Your task to perform on an android device: turn off javascript in the chrome app Image 0: 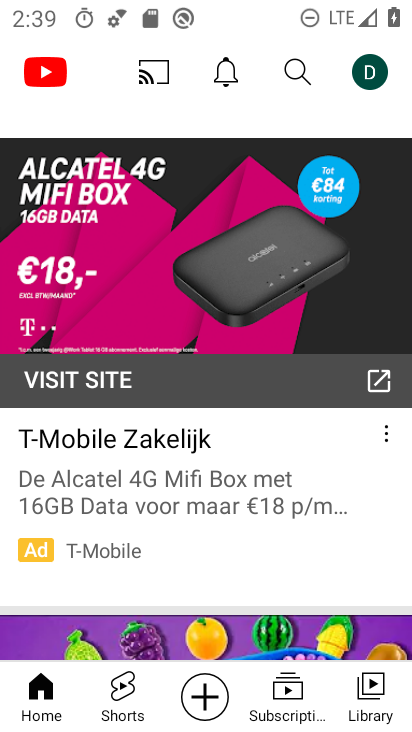
Step 0: press home button
Your task to perform on an android device: turn off javascript in the chrome app Image 1: 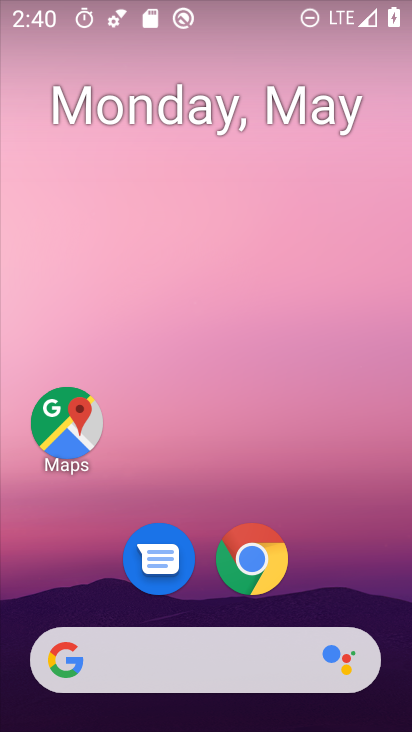
Step 1: click (257, 559)
Your task to perform on an android device: turn off javascript in the chrome app Image 2: 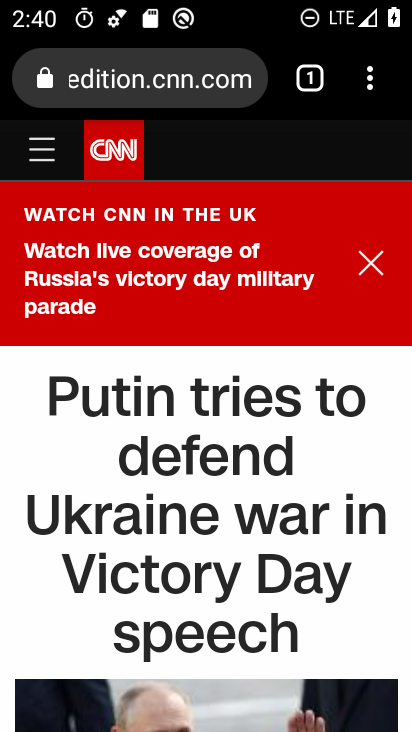
Step 2: drag from (372, 74) to (116, 630)
Your task to perform on an android device: turn off javascript in the chrome app Image 3: 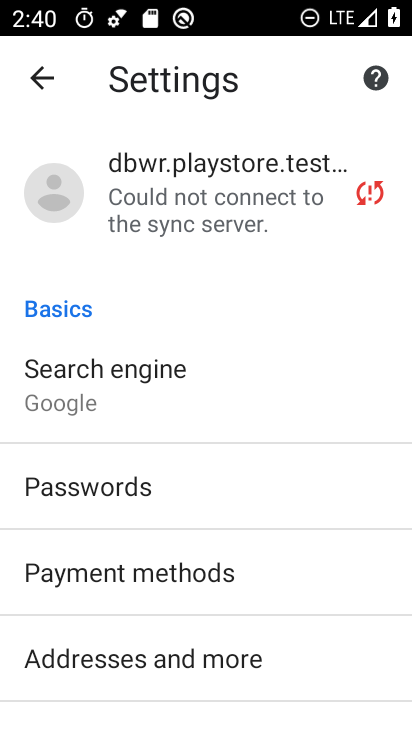
Step 3: drag from (278, 580) to (266, 135)
Your task to perform on an android device: turn off javascript in the chrome app Image 4: 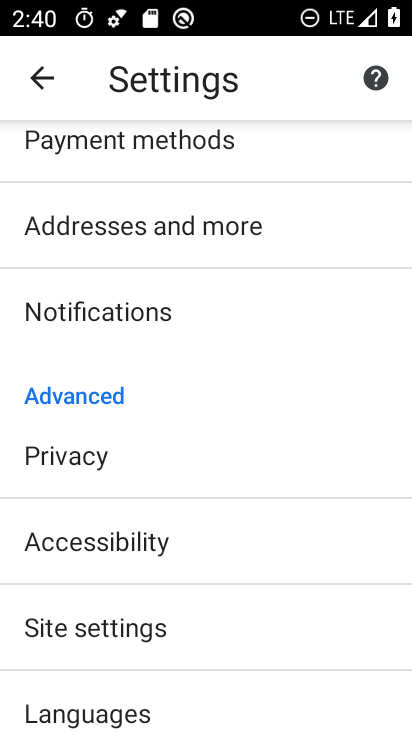
Step 4: drag from (154, 550) to (179, 222)
Your task to perform on an android device: turn off javascript in the chrome app Image 5: 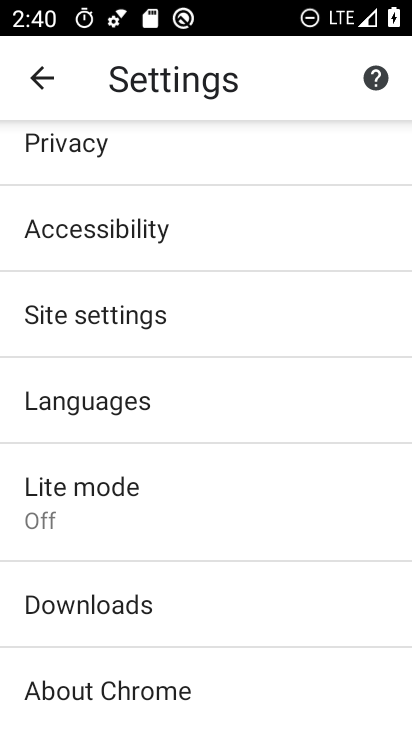
Step 5: click (107, 326)
Your task to perform on an android device: turn off javascript in the chrome app Image 6: 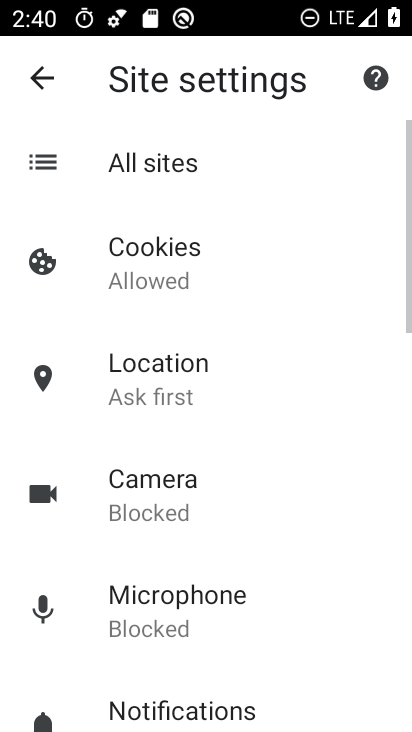
Step 6: drag from (298, 578) to (302, 271)
Your task to perform on an android device: turn off javascript in the chrome app Image 7: 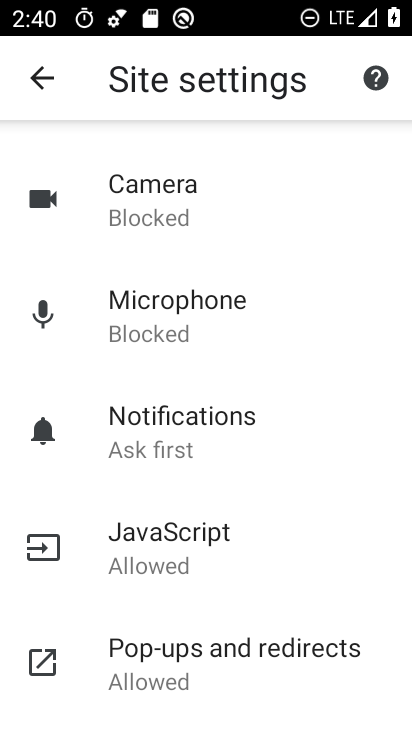
Step 7: click (148, 569)
Your task to perform on an android device: turn off javascript in the chrome app Image 8: 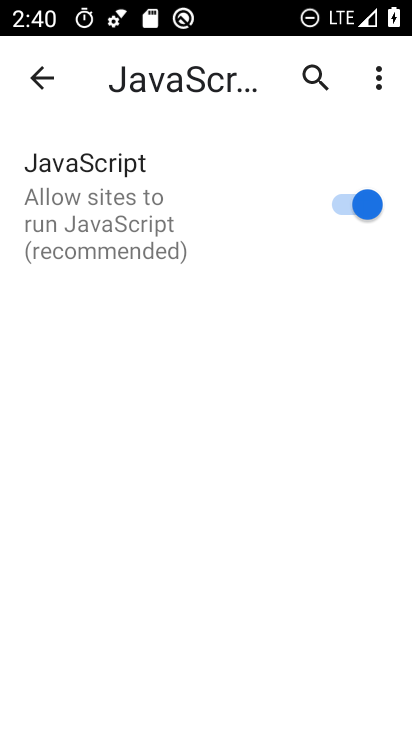
Step 8: click (363, 206)
Your task to perform on an android device: turn off javascript in the chrome app Image 9: 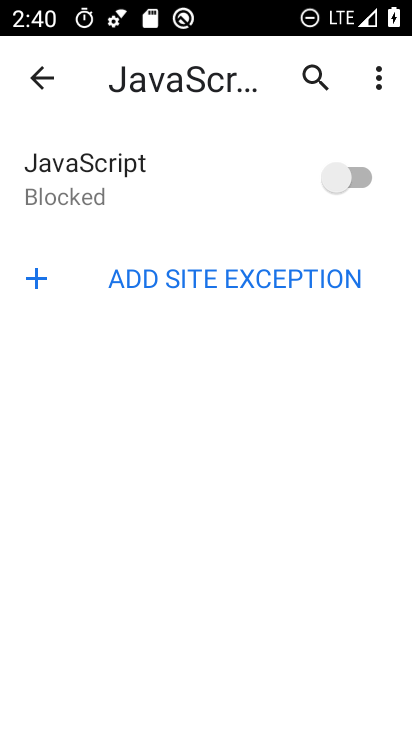
Step 9: task complete